Your task to perform on an android device: What is the news today? Image 0: 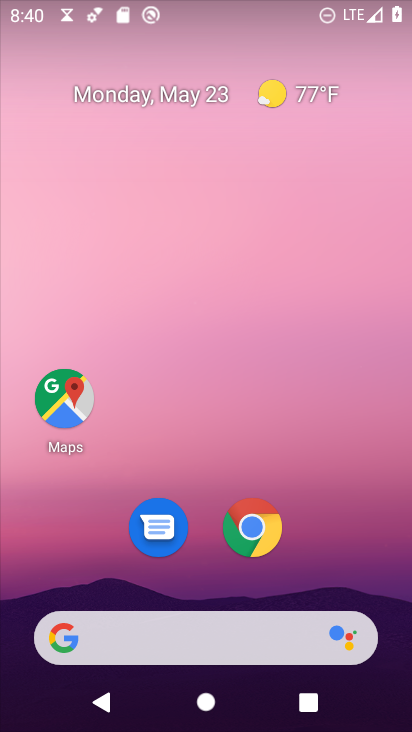
Step 0: press home button
Your task to perform on an android device: What is the news today? Image 1: 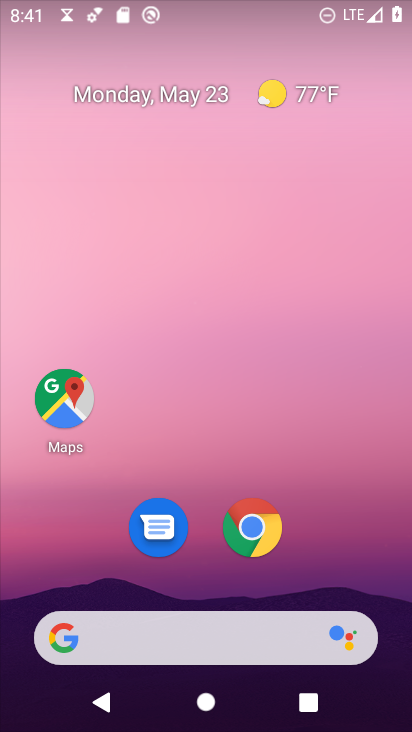
Step 1: click (247, 623)
Your task to perform on an android device: What is the news today? Image 2: 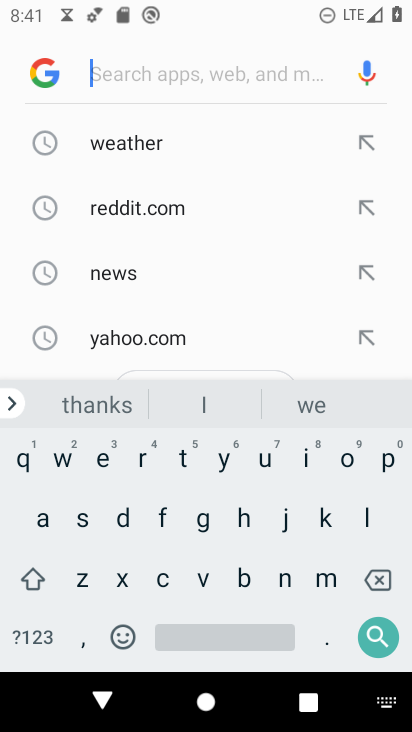
Step 2: click (113, 265)
Your task to perform on an android device: What is the news today? Image 3: 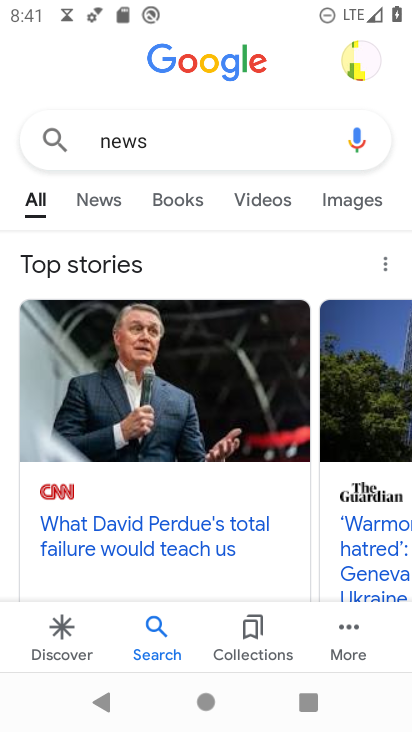
Step 3: task complete